Your task to perform on an android device: Open the calendar and show me this week's events? Image 0: 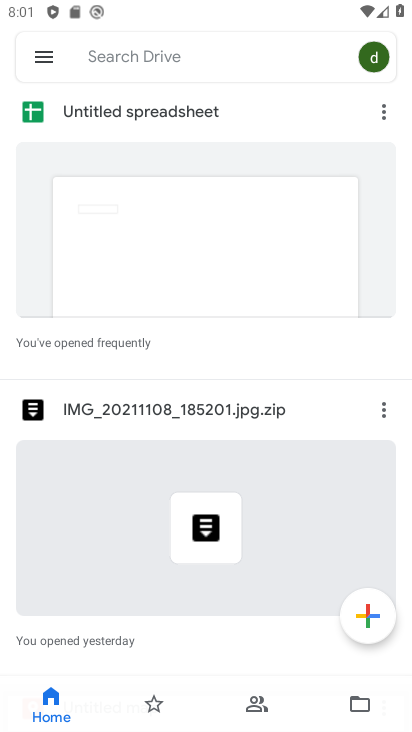
Step 0: press home button
Your task to perform on an android device: Open the calendar and show me this week's events? Image 1: 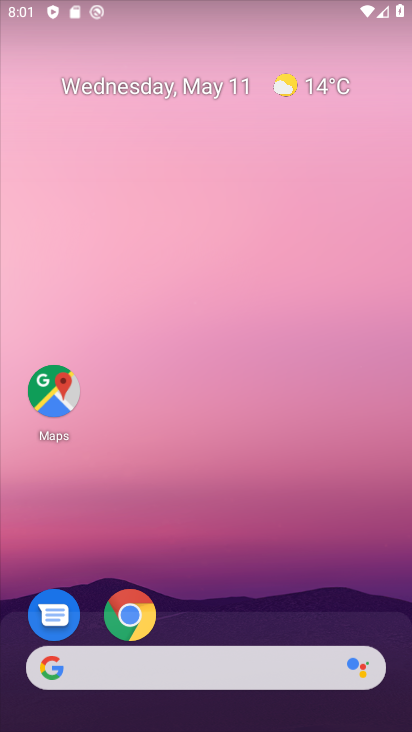
Step 1: drag from (262, 561) to (262, 166)
Your task to perform on an android device: Open the calendar and show me this week's events? Image 2: 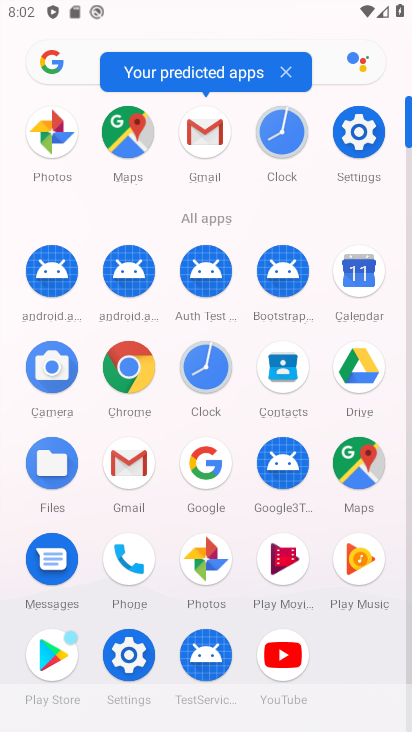
Step 2: click (362, 287)
Your task to perform on an android device: Open the calendar and show me this week's events? Image 3: 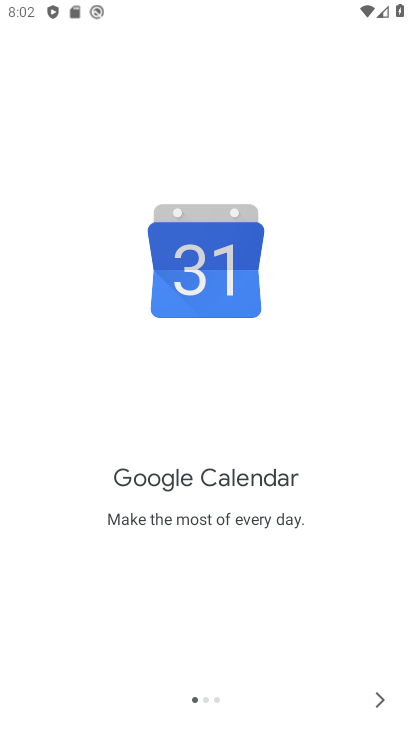
Step 3: click (377, 692)
Your task to perform on an android device: Open the calendar and show me this week's events? Image 4: 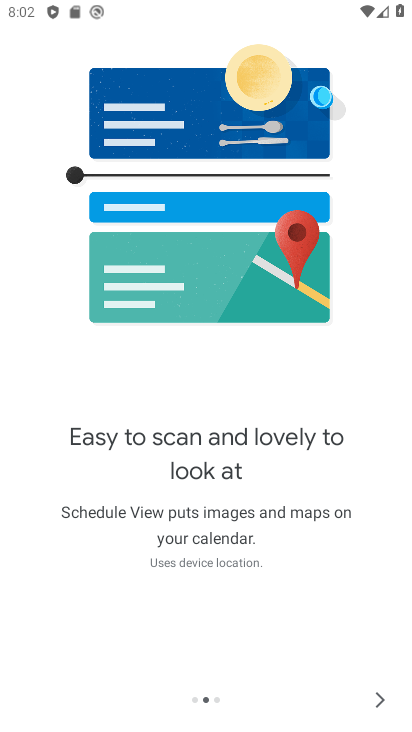
Step 4: click (379, 698)
Your task to perform on an android device: Open the calendar and show me this week's events? Image 5: 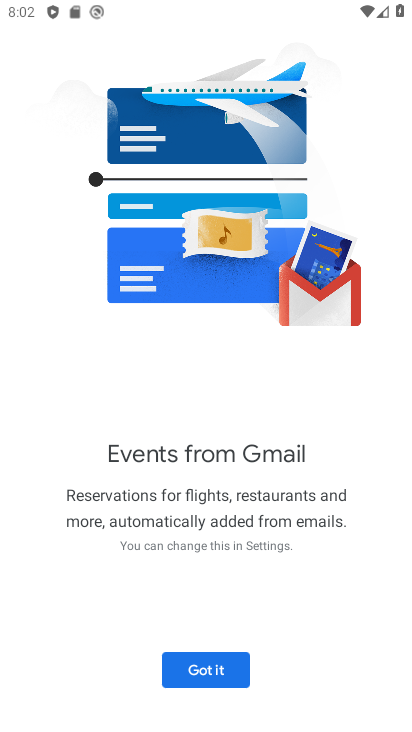
Step 5: click (187, 673)
Your task to perform on an android device: Open the calendar and show me this week's events? Image 6: 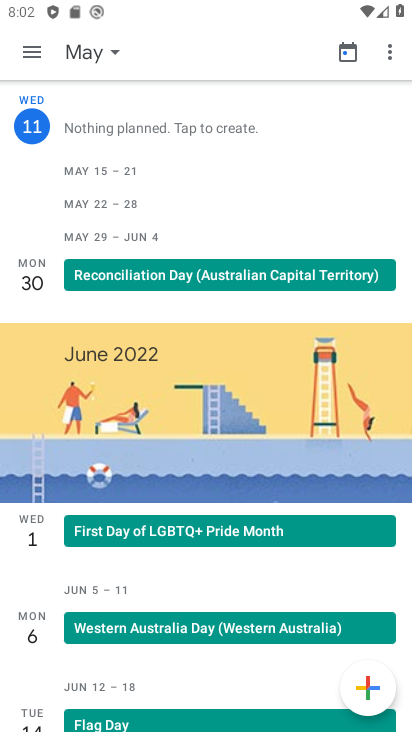
Step 6: click (101, 57)
Your task to perform on an android device: Open the calendar and show me this week's events? Image 7: 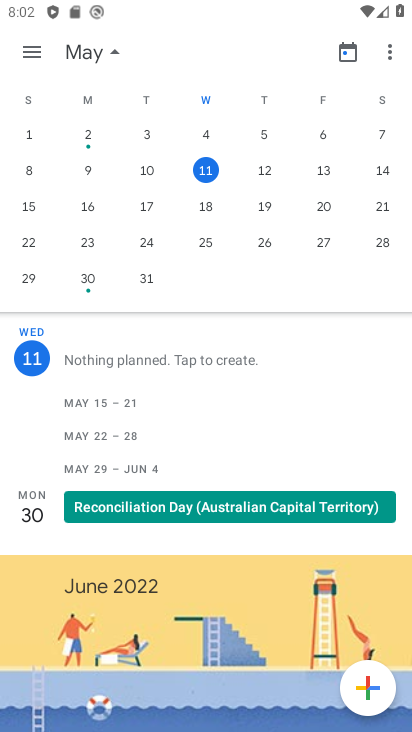
Step 7: click (268, 169)
Your task to perform on an android device: Open the calendar and show me this week's events? Image 8: 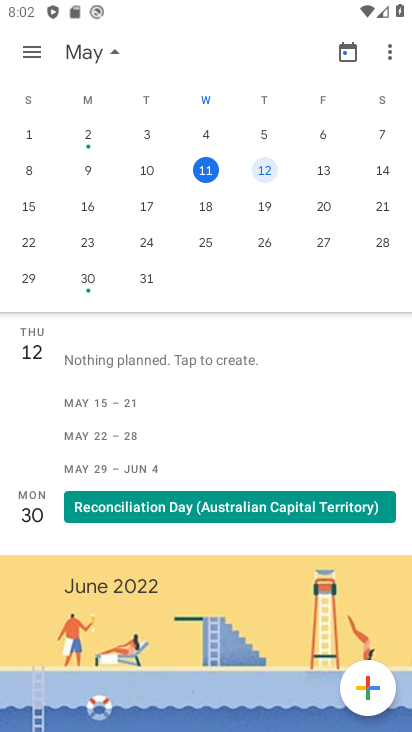
Step 8: click (319, 171)
Your task to perform on an android device: Open the calendar and show me this week's events? Image 9: 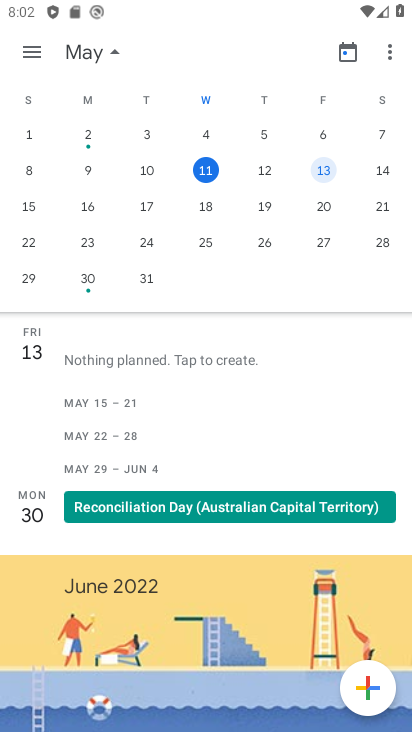
Step 9: click (380, 179)
Your task to perform on an android device: Open the calendar and show me this week's events? Image 10: 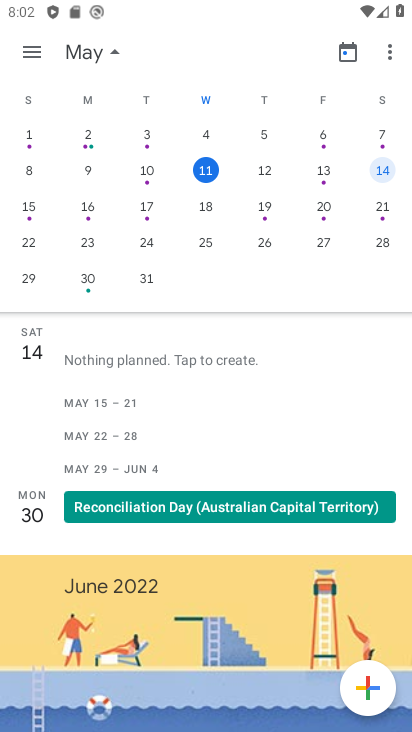
Step 10: task complete